Your task to perform on an android device: Search for "usb-c to usb-a" on ebay.com, select the first entry, add it to the cart, then select checkout. Image 0: 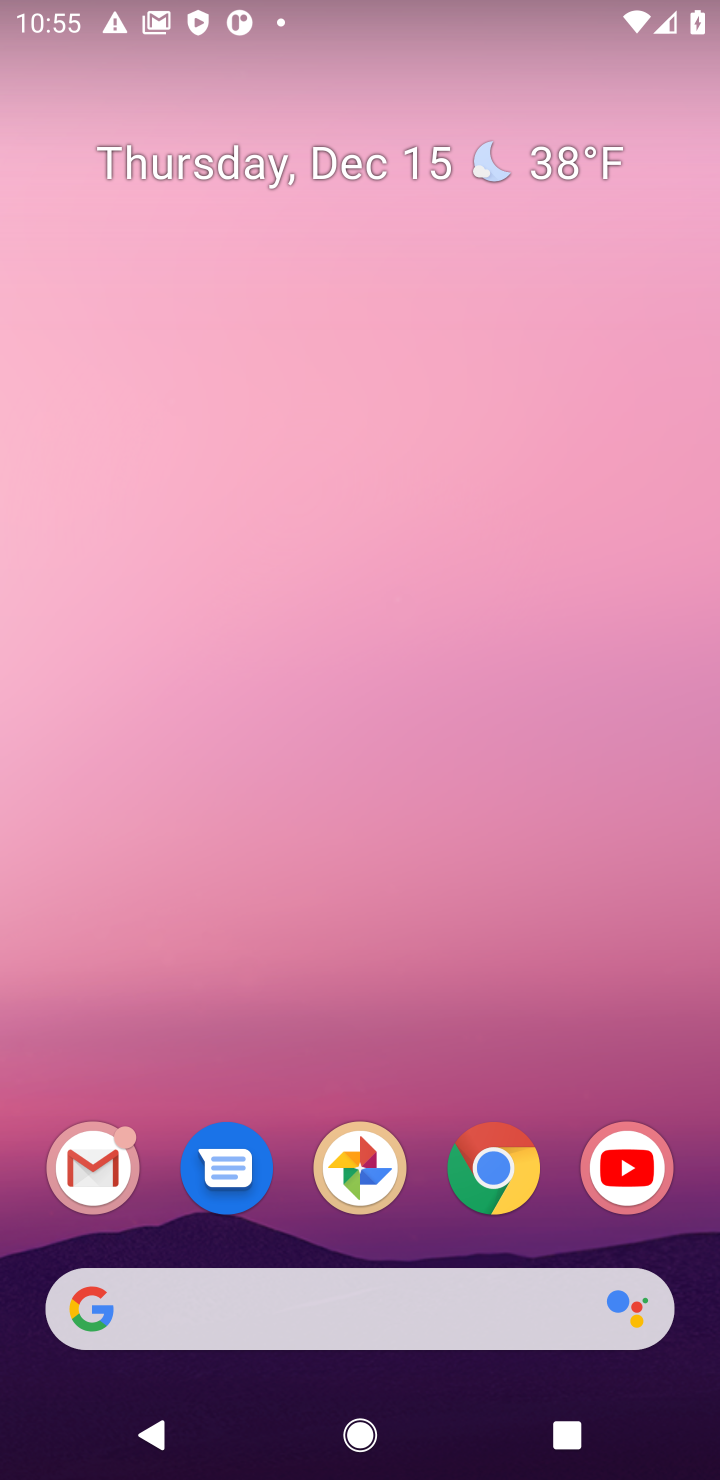
Step 0: click (485, 1166)
Your task to perform on an android device: Search for "usb-c to usb-a" on ebay.com, select the first entry, add it to the cart, then select checkout. Image 1: 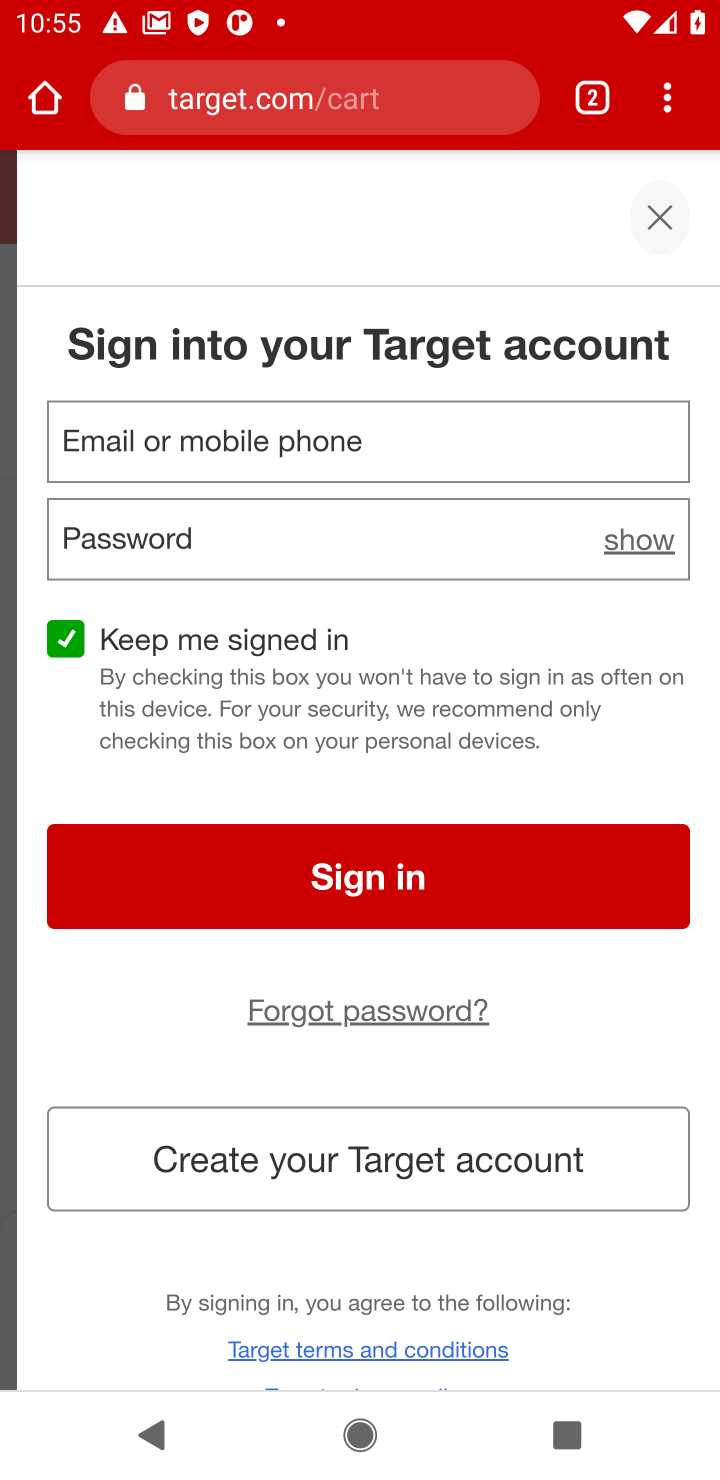
Step 1: click (368, 110)
Your task to perform on an android device: Search for "usb-c to usb-a" on ebay.com, select the first entry, add it to the cart, then select checkout. Image 2: 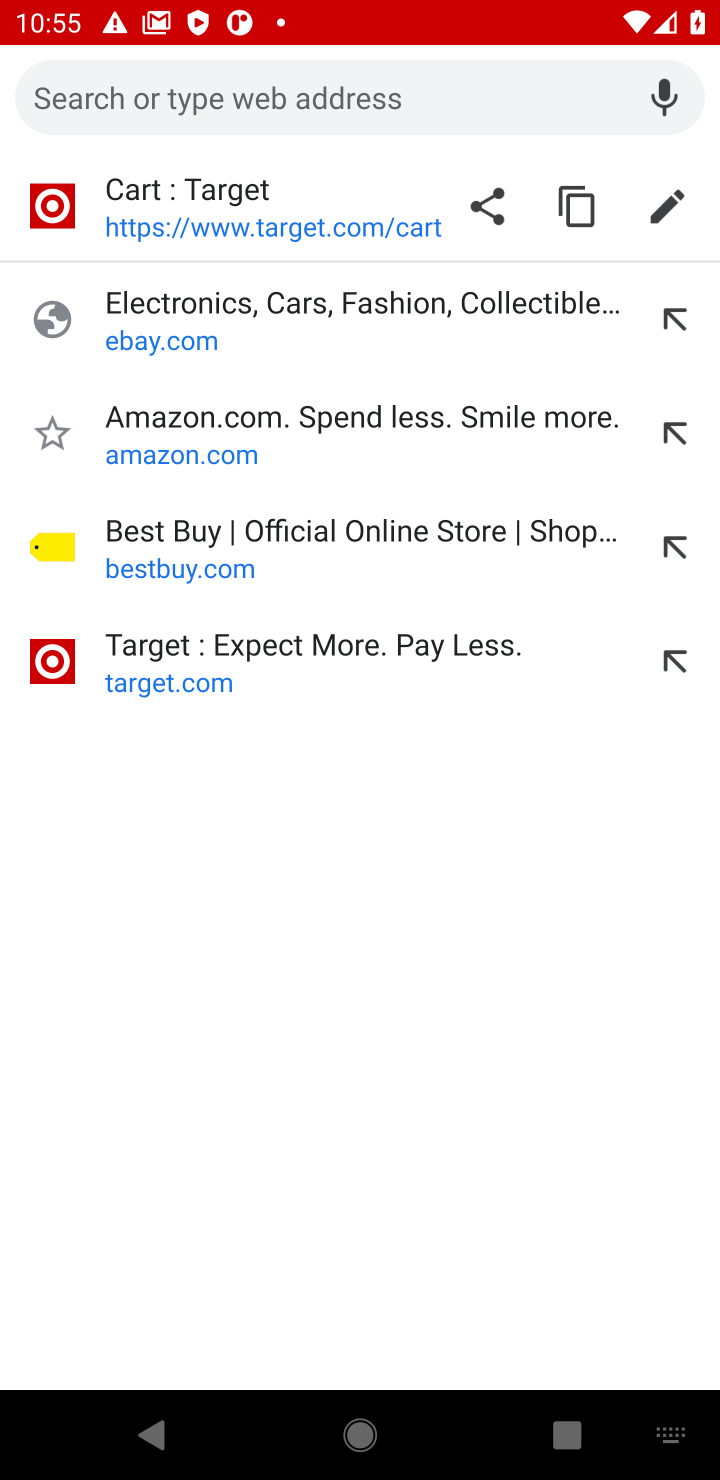
Step 2: click (485, 332)
Your task to perform on an android device: Search for "usb-c to usb-a" on ebay.com, select the first entry, add it to the cart, then select checkout. Image 3: 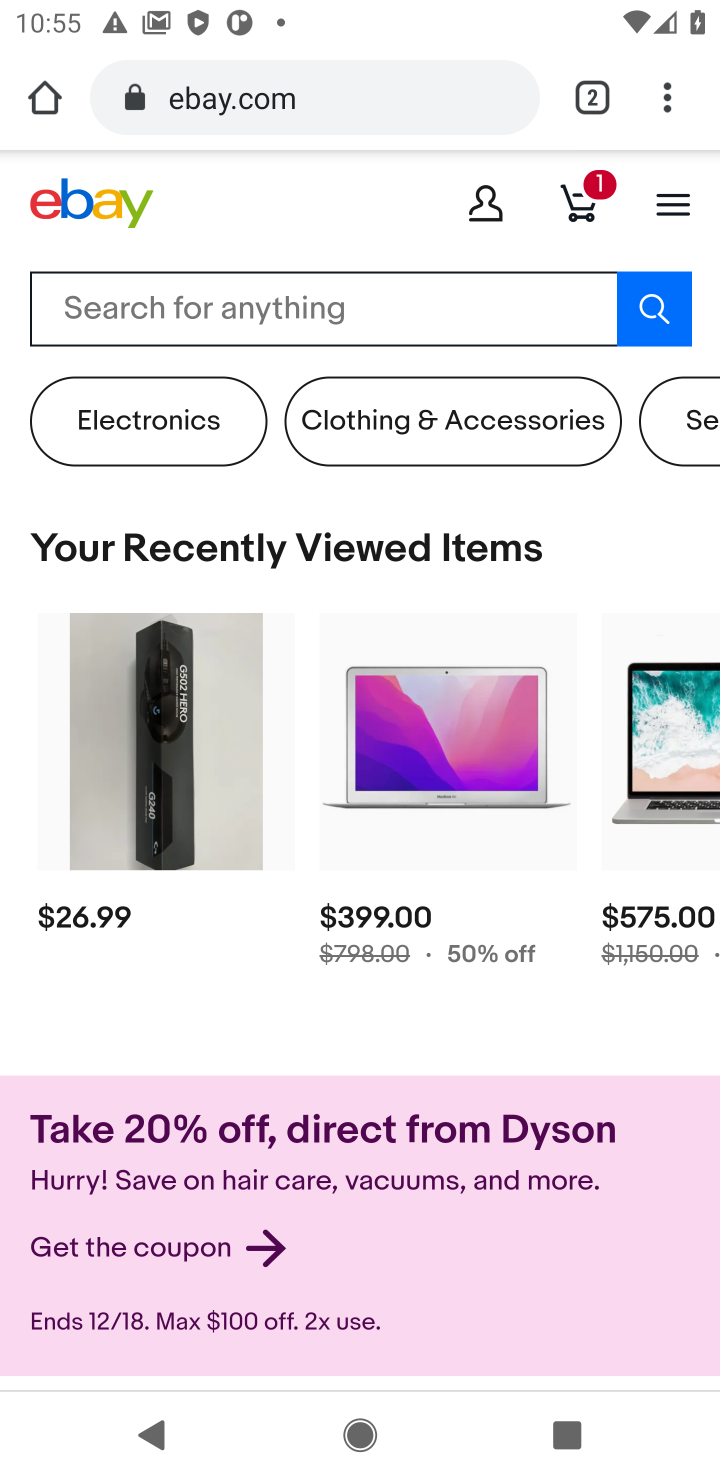
Step 3: click (465, 316)
Your task to perform on an android device: Search for "usb-c to usb-a" on ebay.com, select the first entry, add it to the cart, then select checkout. Image 4: 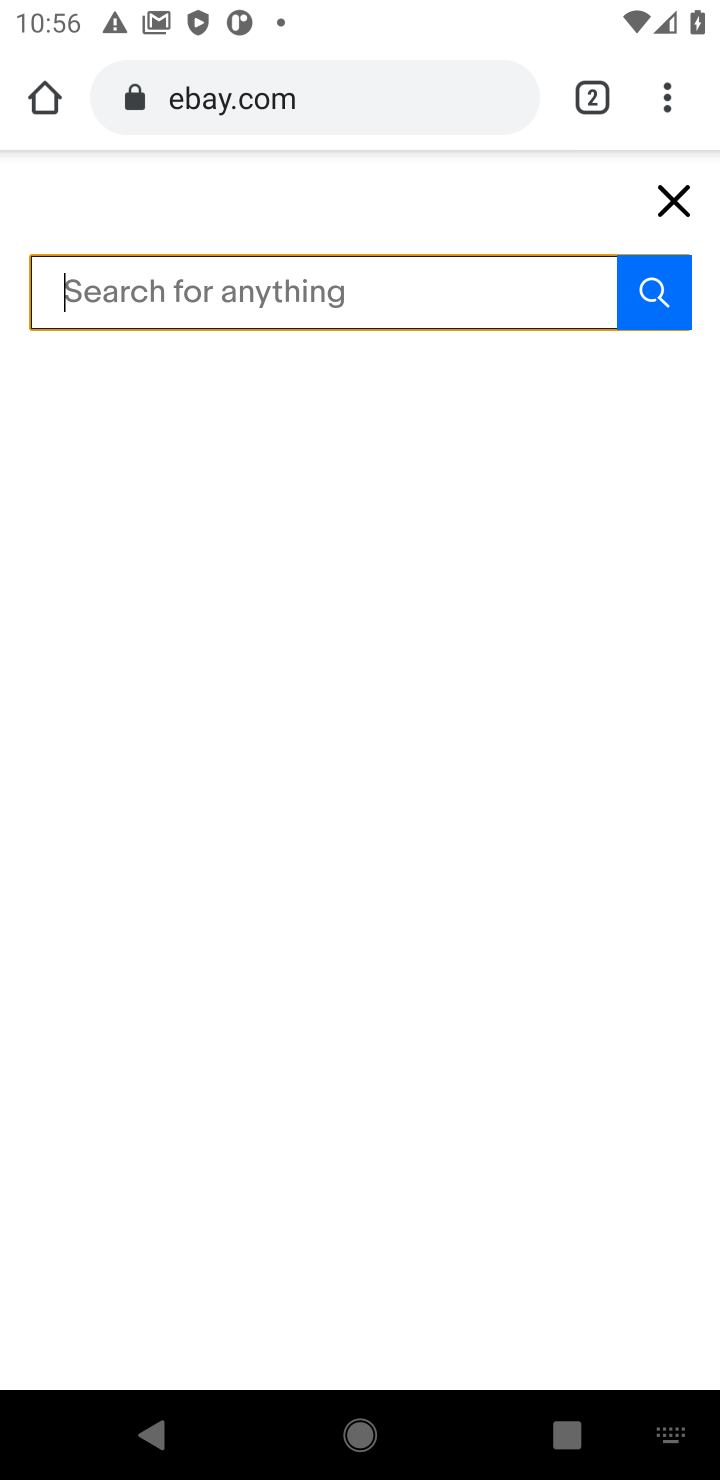
Step 4: type "usb-c to usb-a"
Your task to perform on an android device: Search for "usb-c to usb-a" on ebay.com, select the first entry, add it to the cart, then select checkout. Image 5: 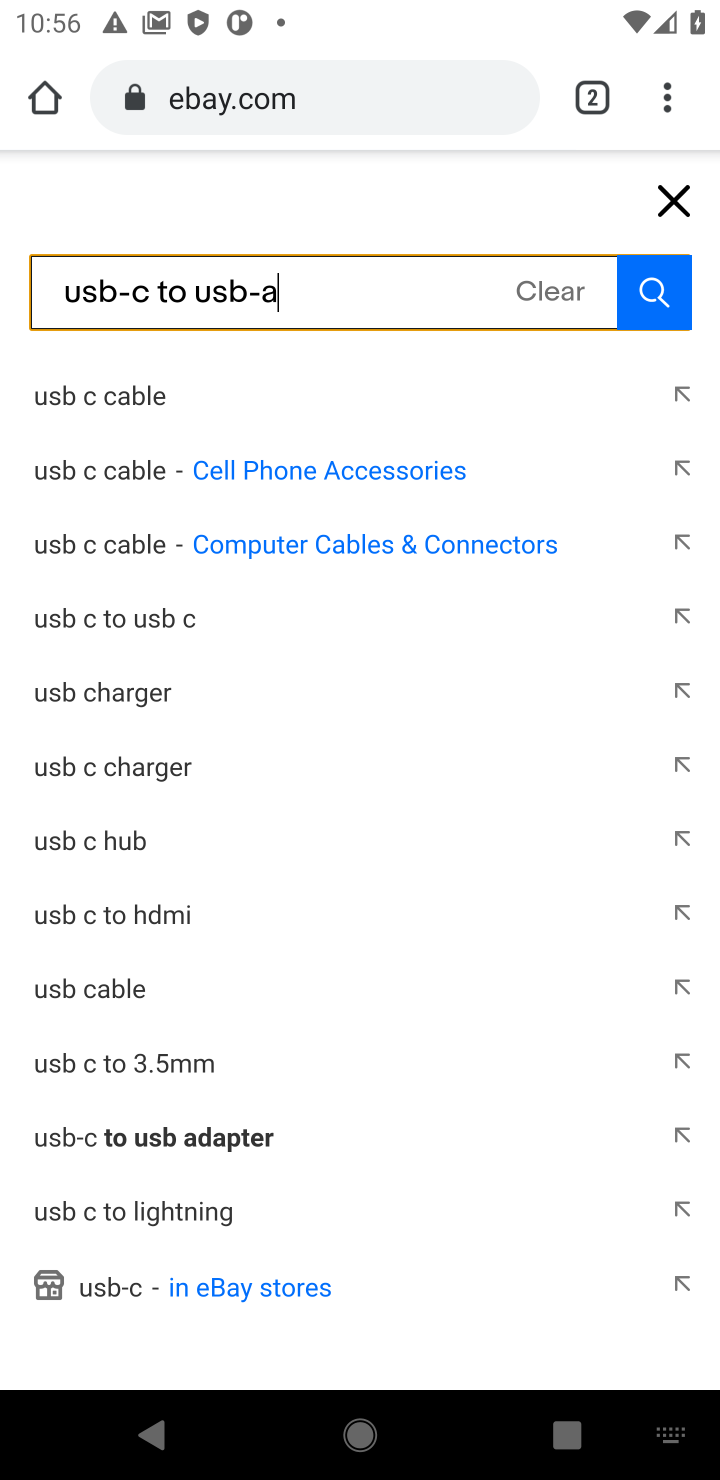
Step 5: click (186, 398)
Your task to perform on an android device: Search for "usb-c to usb-a" on ebay.com, select the first entry, add it to the cart, then select checkout. Image 6: 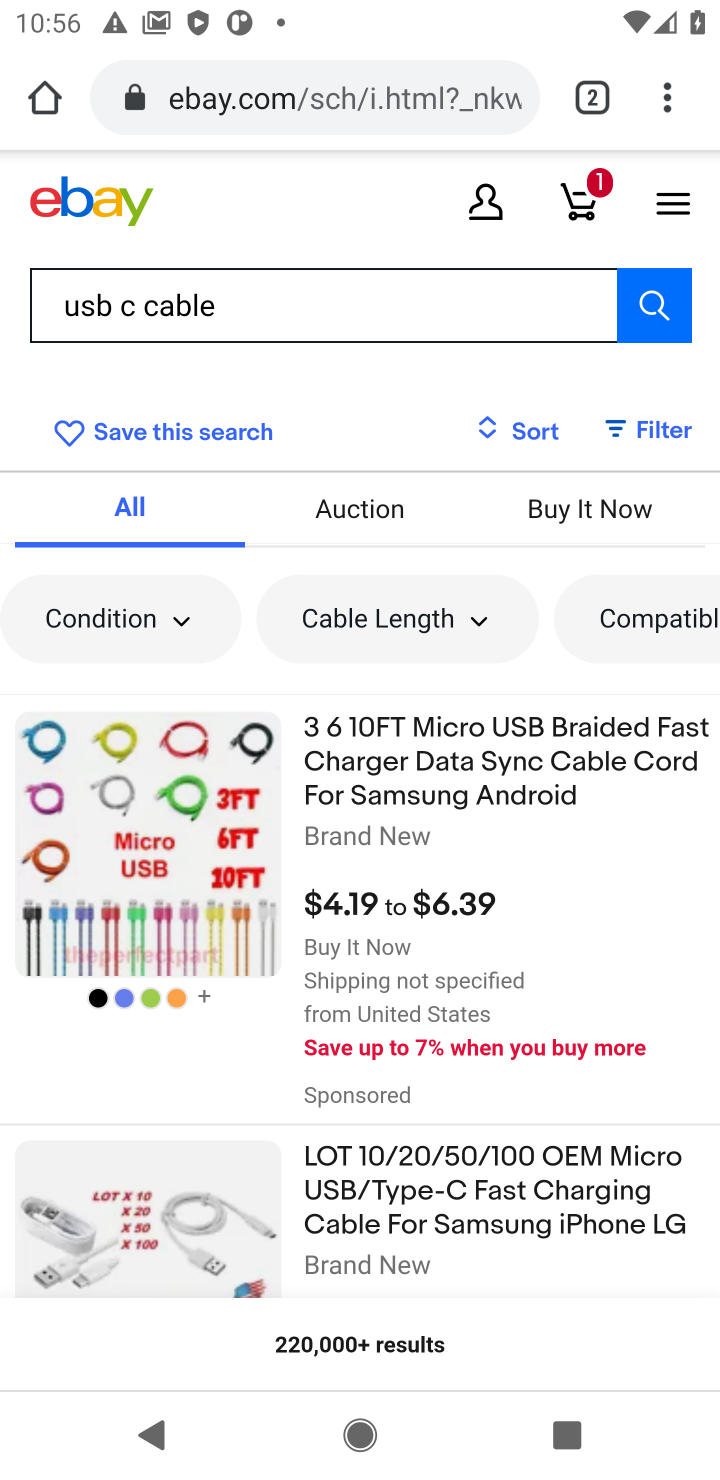
Step 6: click (442, 766)
Your task to perform on an android device: Search for "usb-c to usb-a" on ebay.com, select the first entry, add it to the cart, then select checkout. Image 7: 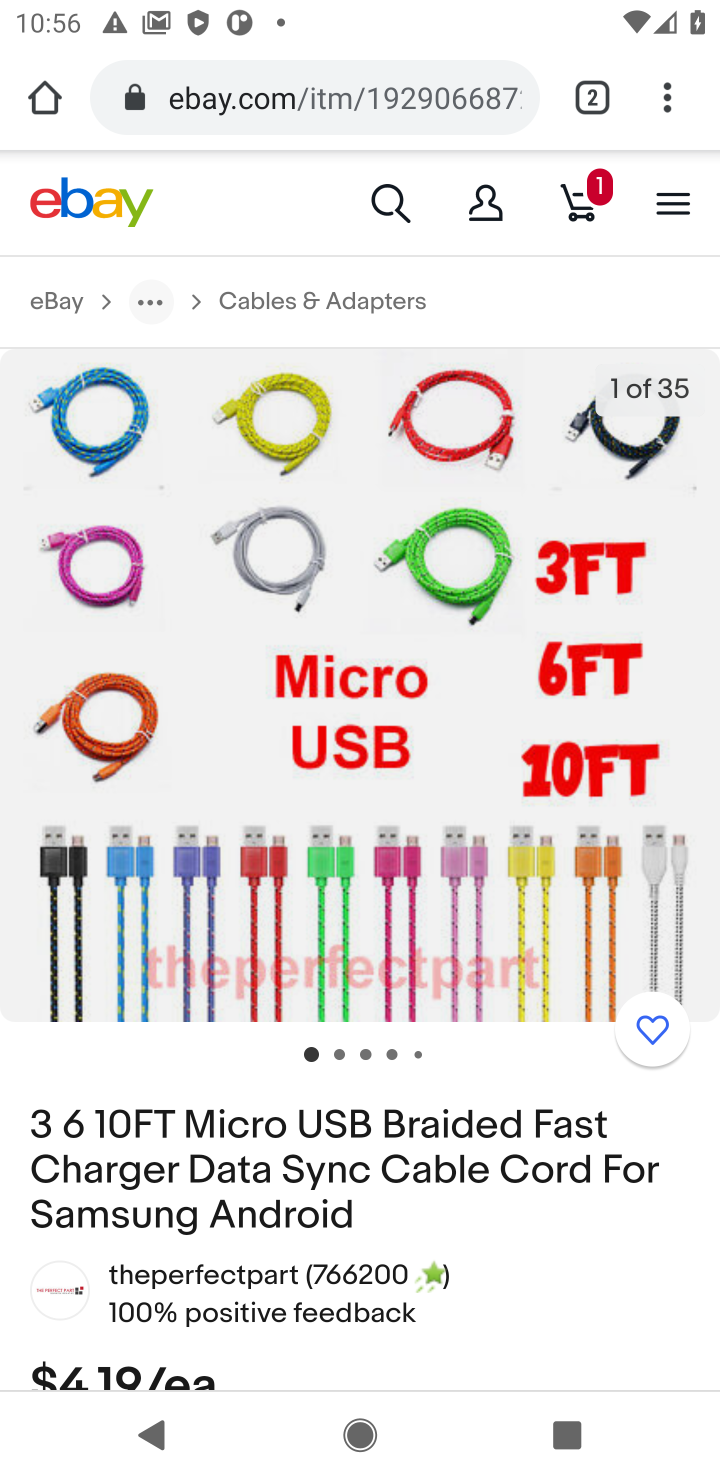
Step 7: drag from (538, 1159) to (517, 265)
Your task to perform on an android device: Search for "usb-c to usb-a" on ebay.com, select the first entry, add it to the cart, then select checkout. Image 8: 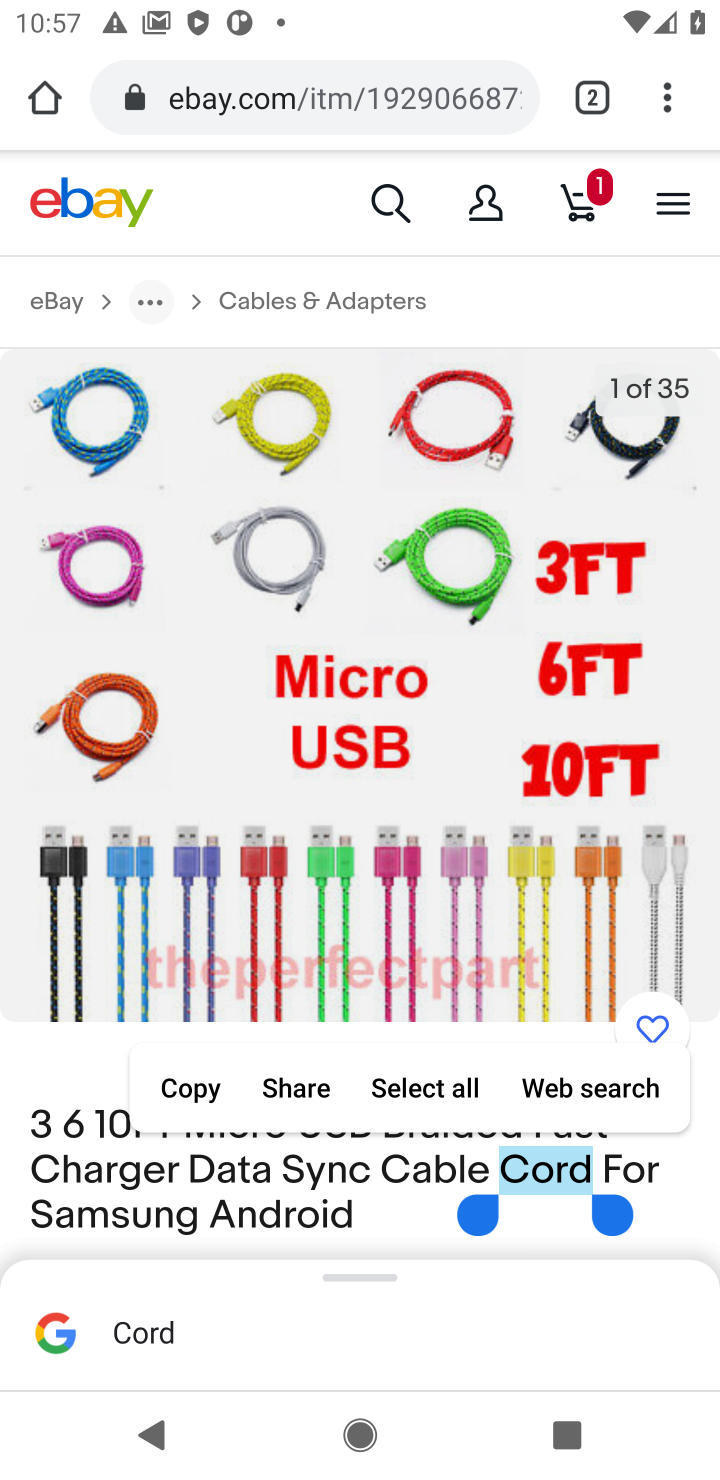
Step 8: click (395, 1207)
Your task to perform on an android device: Search for "usb-c to usb-a" on ebay.com, select the first entry, add it to the cart, then select checkout. Image 9: 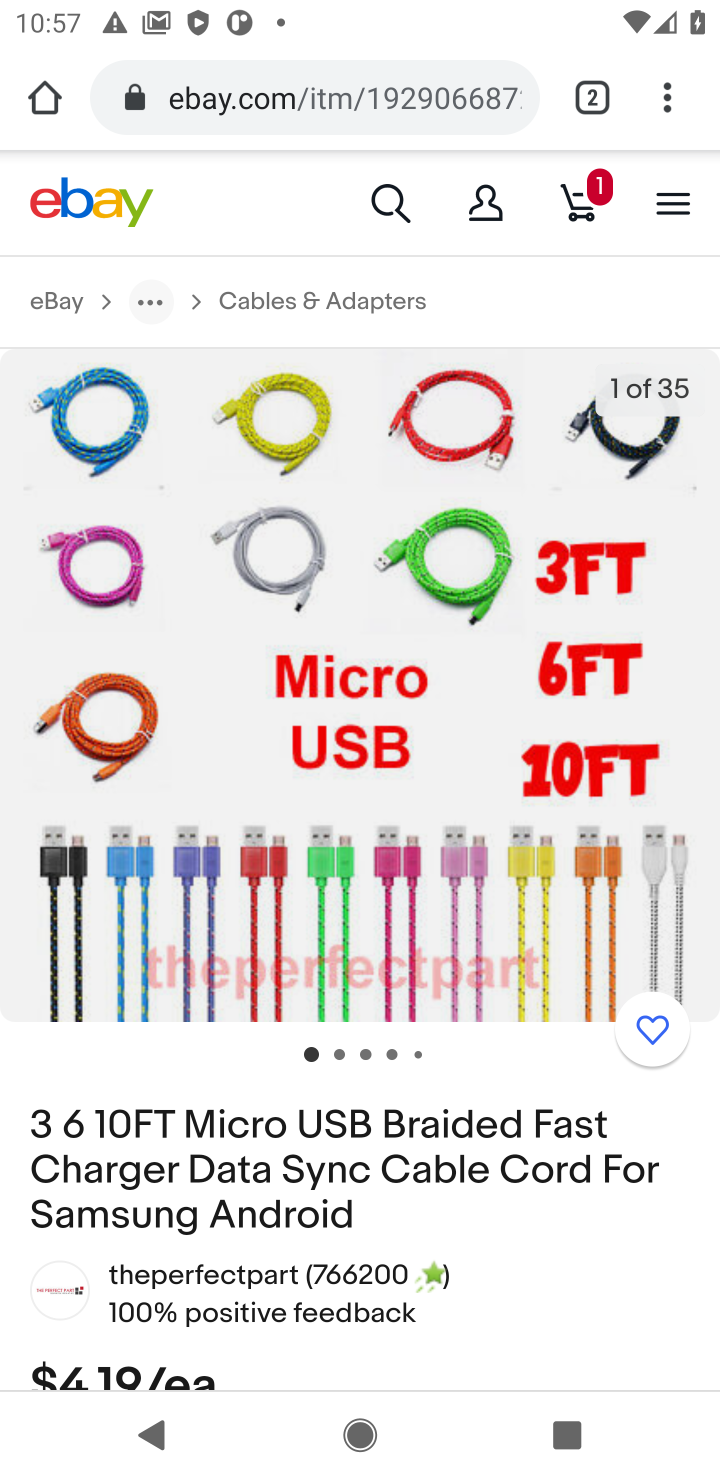
Step 9: drag from (487, 1207) to (384, 99)
Your task to perform on an android device: Search for "usb-c to usb-a" on ebay.com, select the first entry, add it to the cart, then select checkout. Image 10: 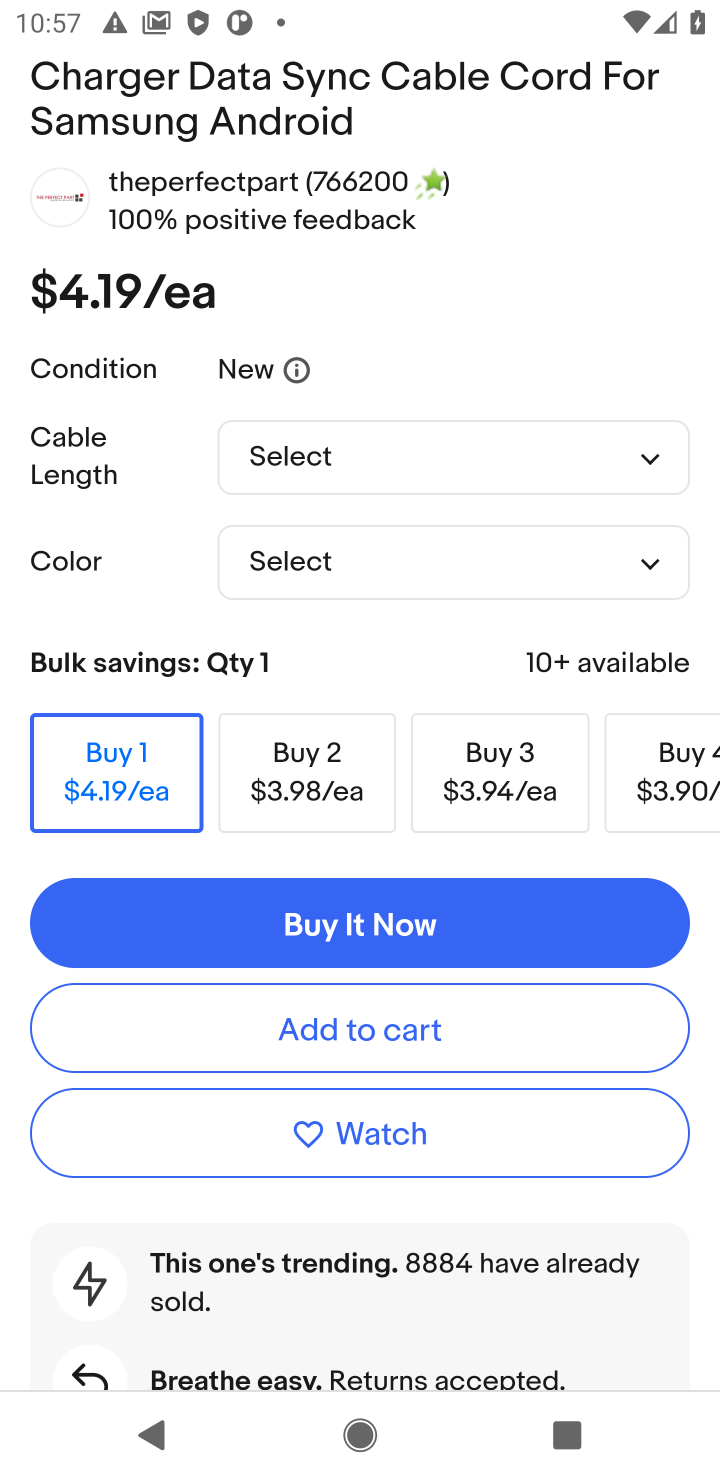
Step 10: click (389, 1010)
Your task to perform on an android device: Search for "usb-c to usb-a" on ebay.com, select the first entry, add it to the cart, then select checkout. Image 11: 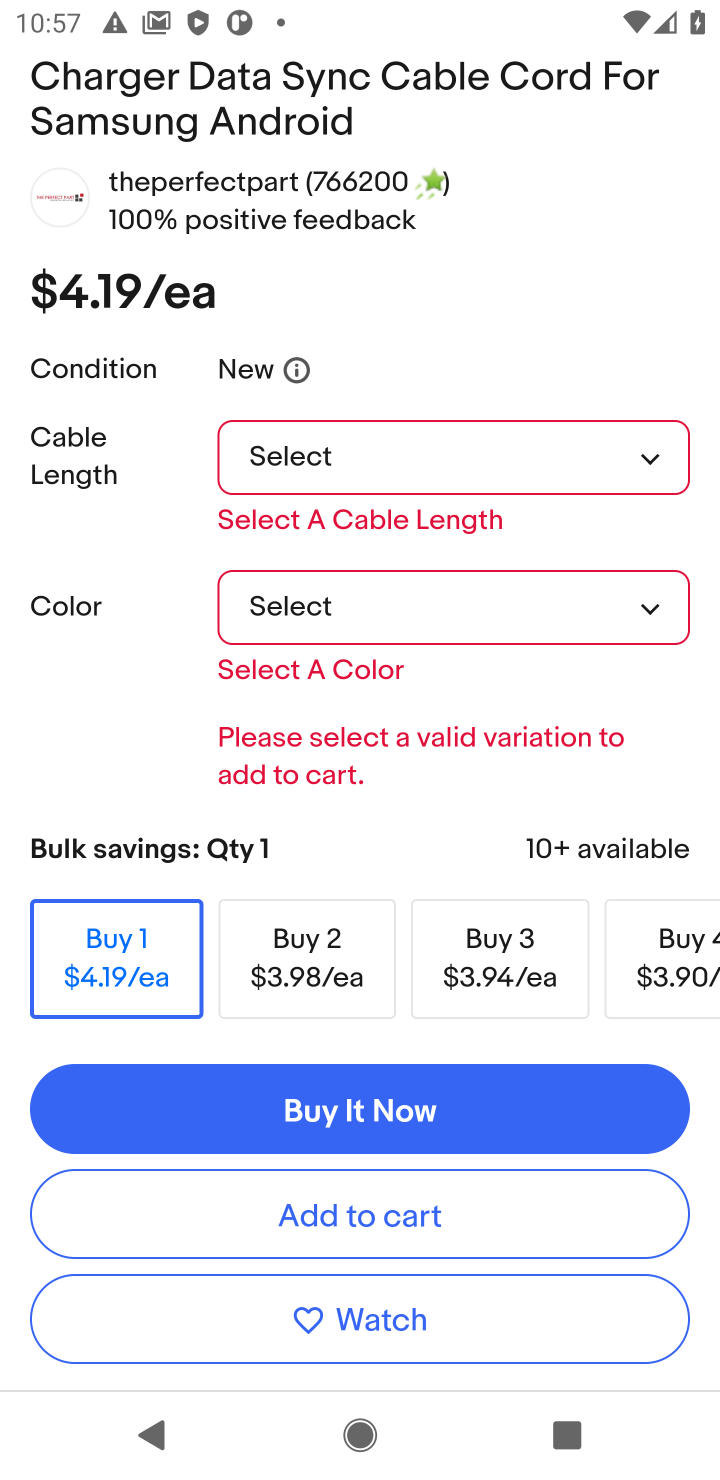
Step 11: click (390, 1209)
Your task to perform on an android device: Search for "usb-c to usb-a" on ebay.com, select the first entry, add it to the cart, then select checkout. Image 12: 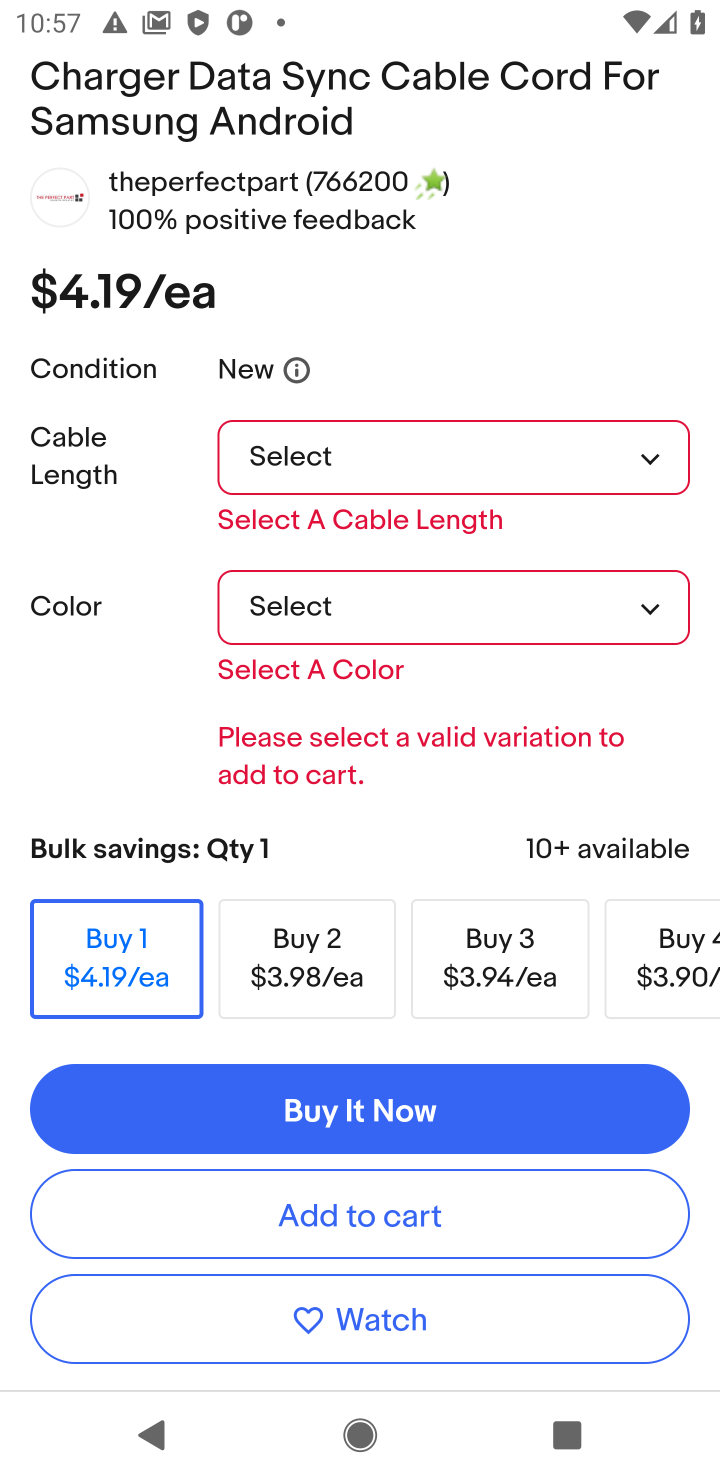
Step 12: click (390, 1209)
Your task to perform on an android device: Search for "usb-c to usb-a" on ebay.com, select the first entry, add it to the cart, then select checkout. Image 13: 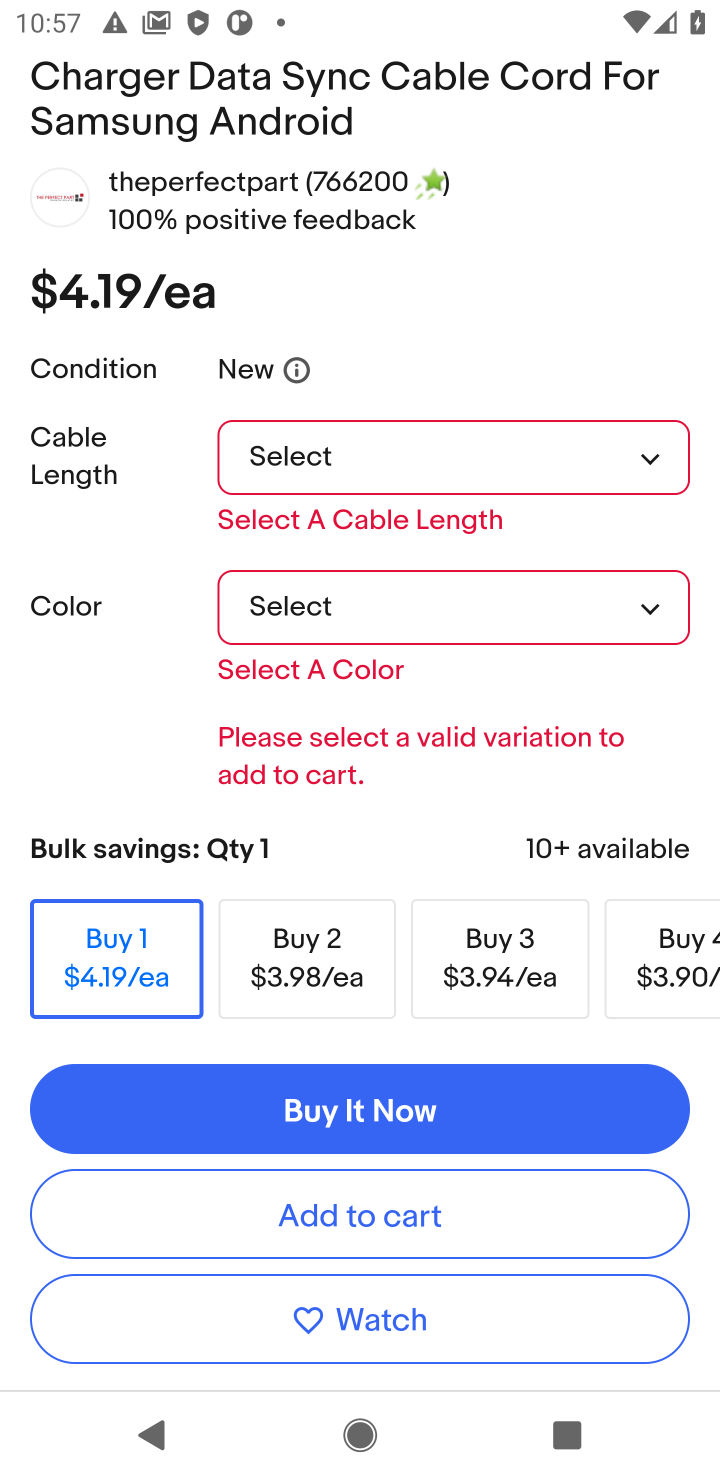
Step 13: click (592, 449)
Your task to perform on an android device: Search for "usb-c to usb-a" on ebay.com, select the first entry, add it to the cart, then select checkout. Image 14: 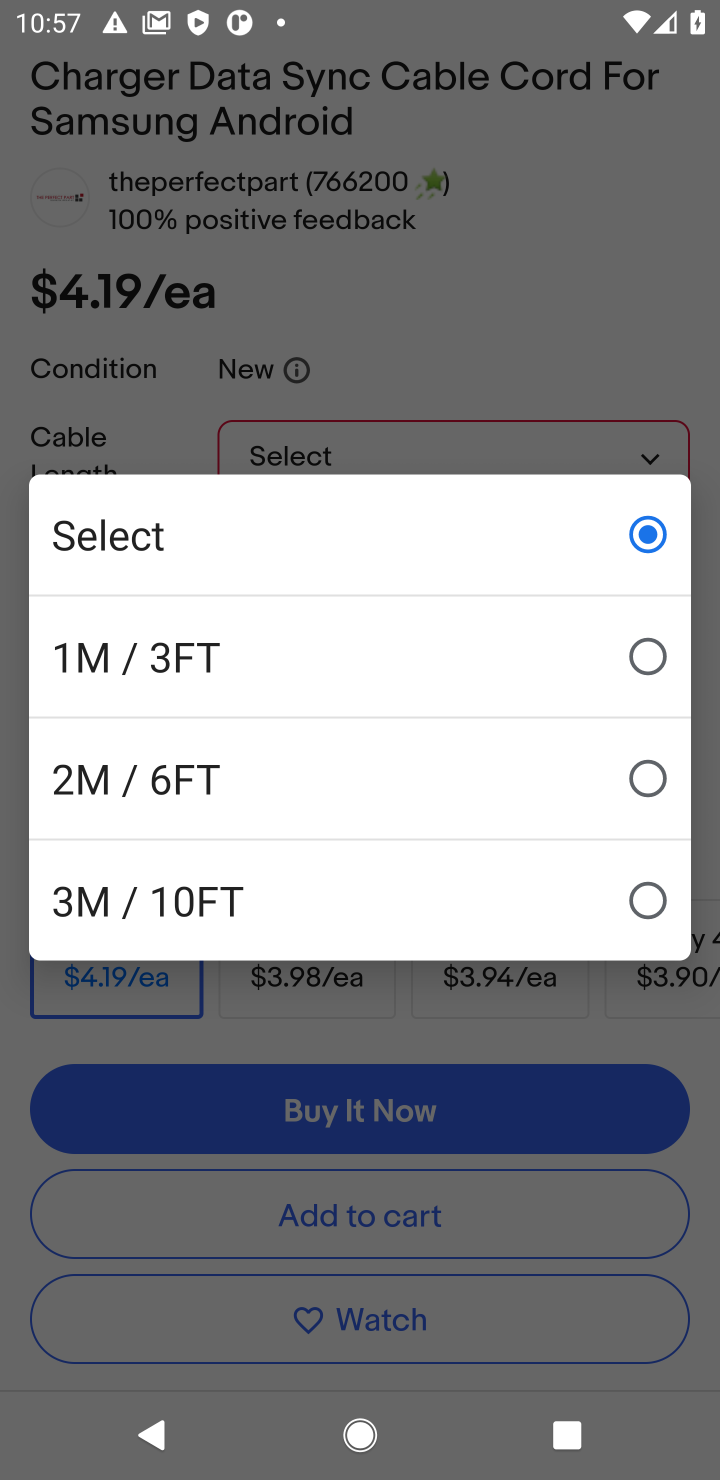
Step 14: click (236, 659)
Your task to perform on an android device: Search for "usb-c to usb-a" on ebay.com, select the first entry, add it to the cart, then select checkout. Image 15: 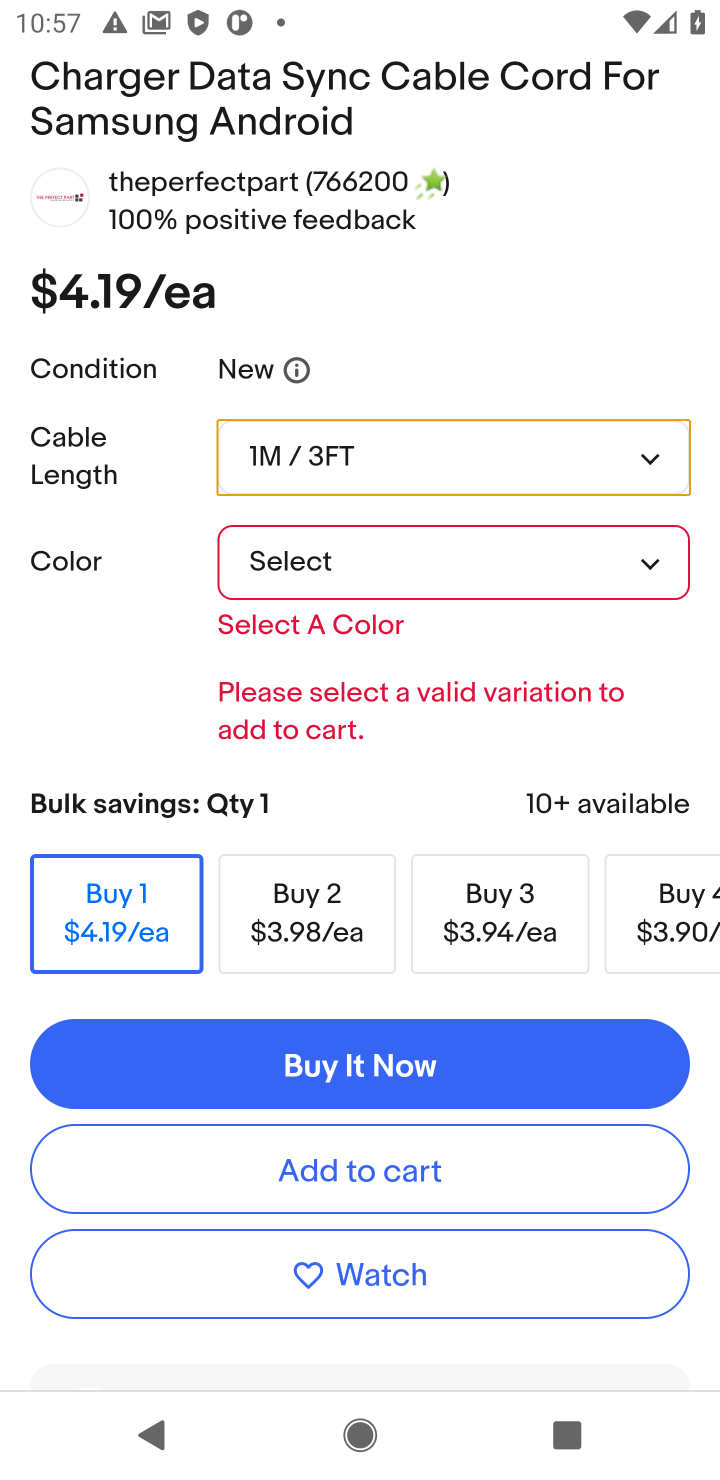
Step 15: click (608, 564)
Your task to perform on an android device: Search for "usb-c to usb-a" on ebay.com, select the first entry, add it to the cart, then select checkout. Image 16: 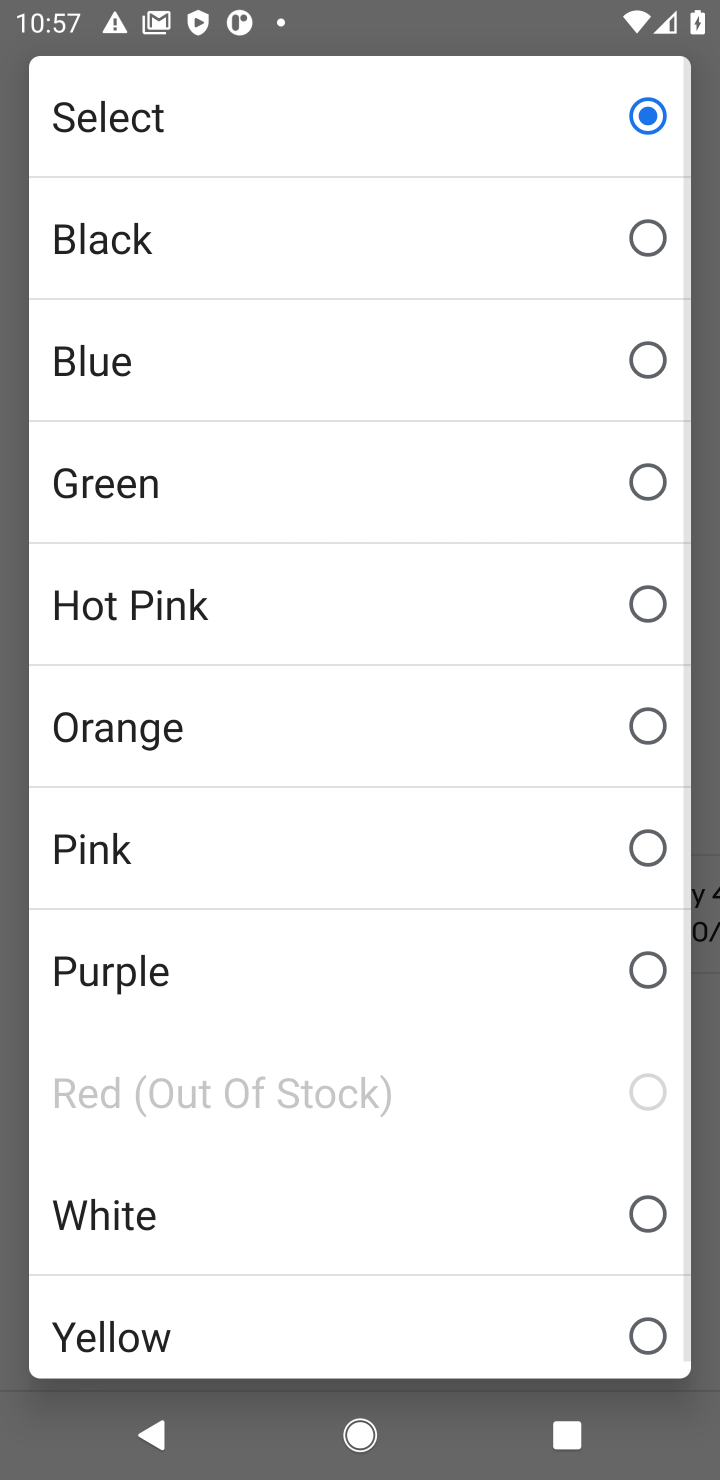
Step 16: click (254, 239)
Your task to perform on an android device: Search for "usb-c to usb-a" on ebay.com, select the first entry, add it to the cart, then select checkout. Image 17: 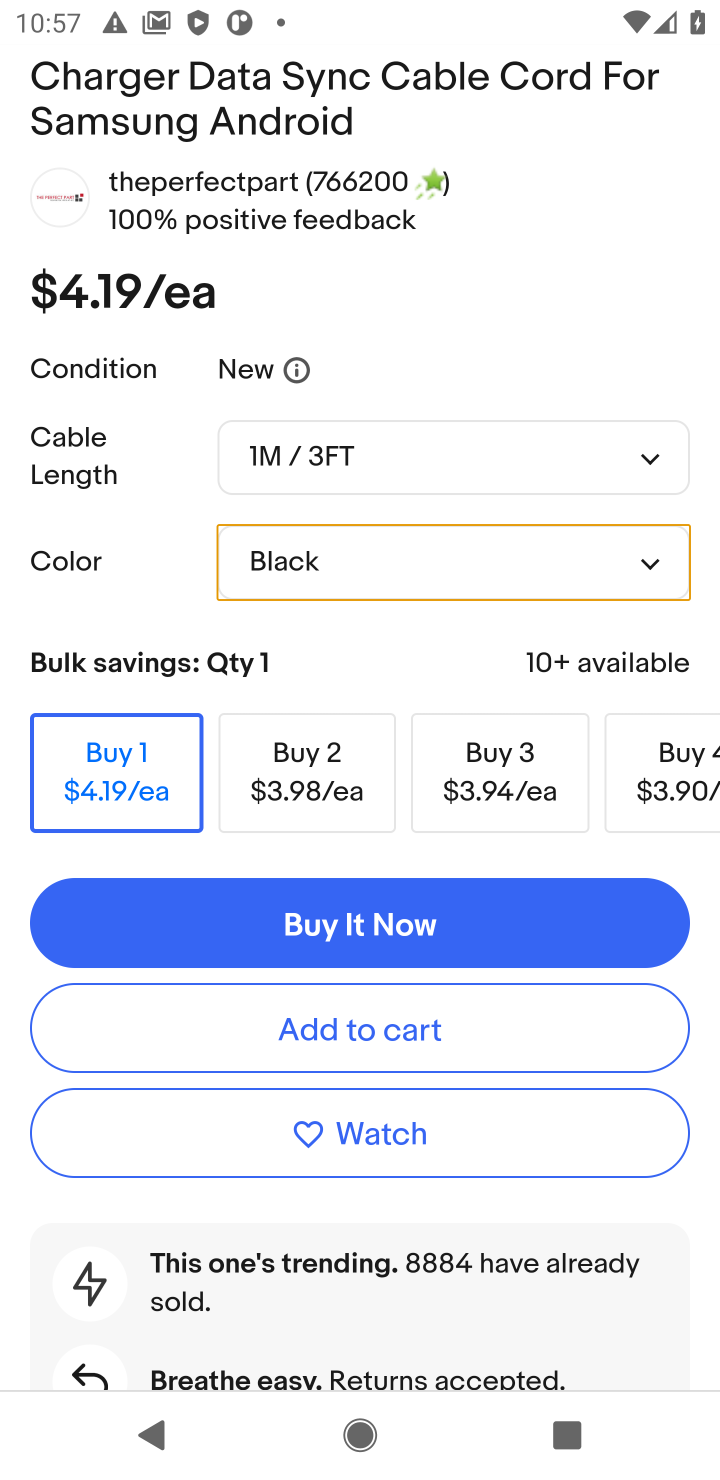
Step 17: click (429, 1035)
Your task to perform on an android device: Search for "usb-c to usb-a" on ebay.com, select the first entry, add it to the cart, then select checkout. Image 18: 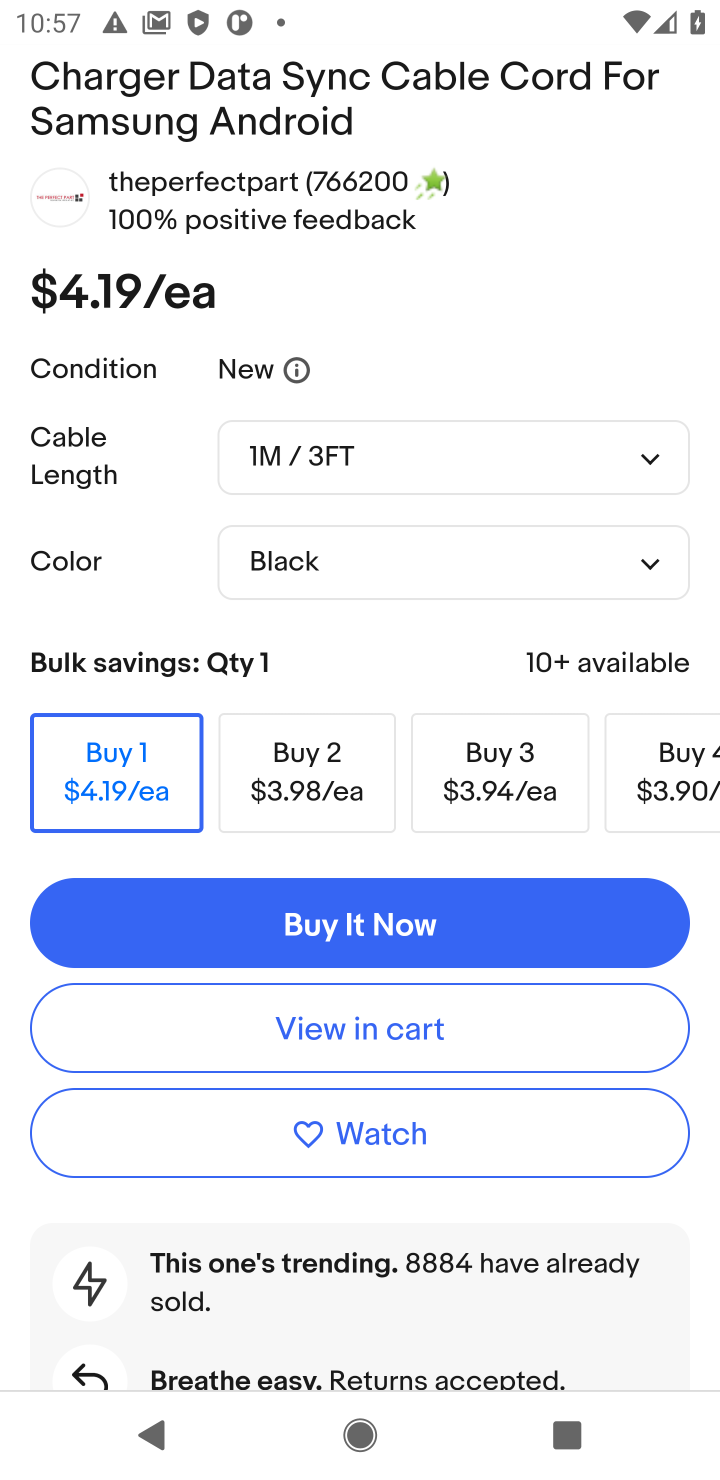
Step 18: click (429, 1035)
Your task to perform on an android device: Search for "usb-c to usb-a" on ebay.com, select the first entry, add it to the cart, then select checkout. Image 19: 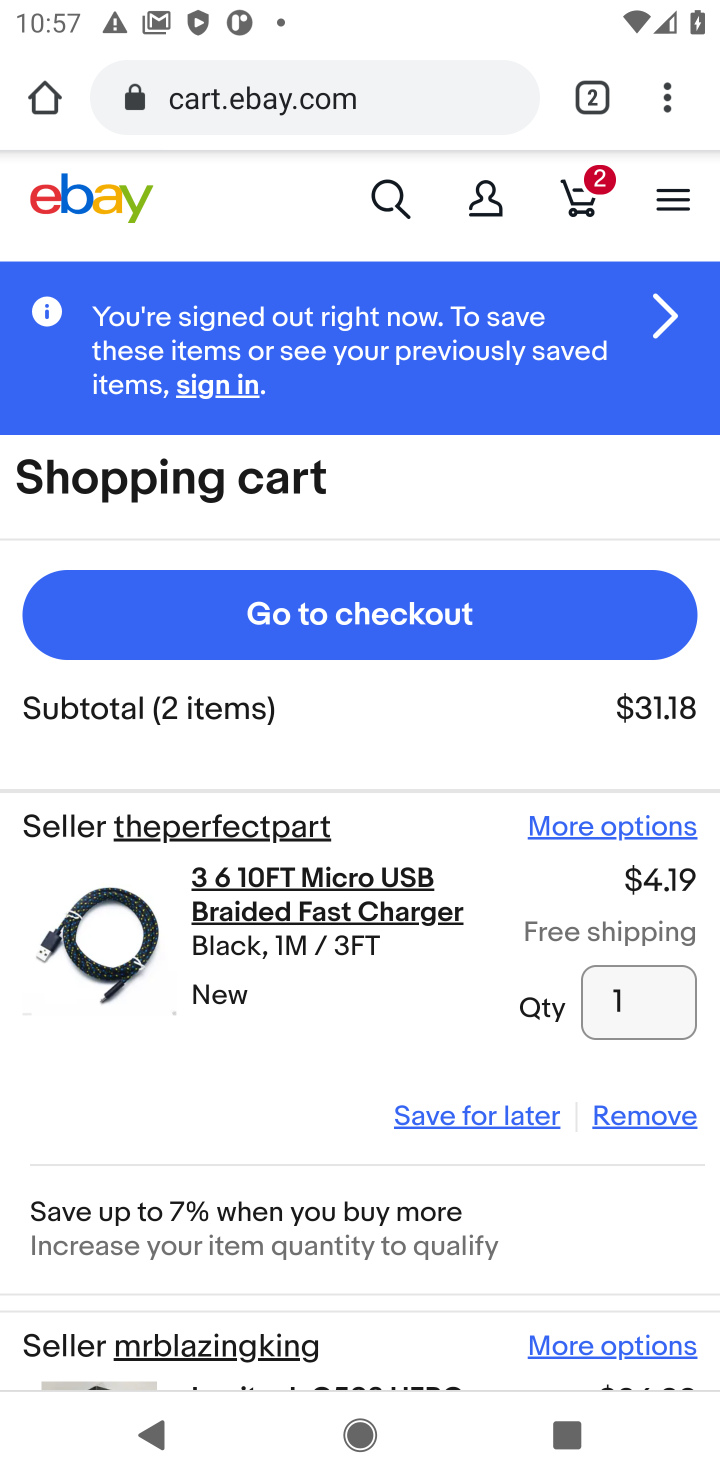
Step 19: click (332, 620)
Your task to perform on an android device: Search for "usb-c to usb-a" on ebay.com, select the first entry, add it to the cart, then select checkout. Image 20: 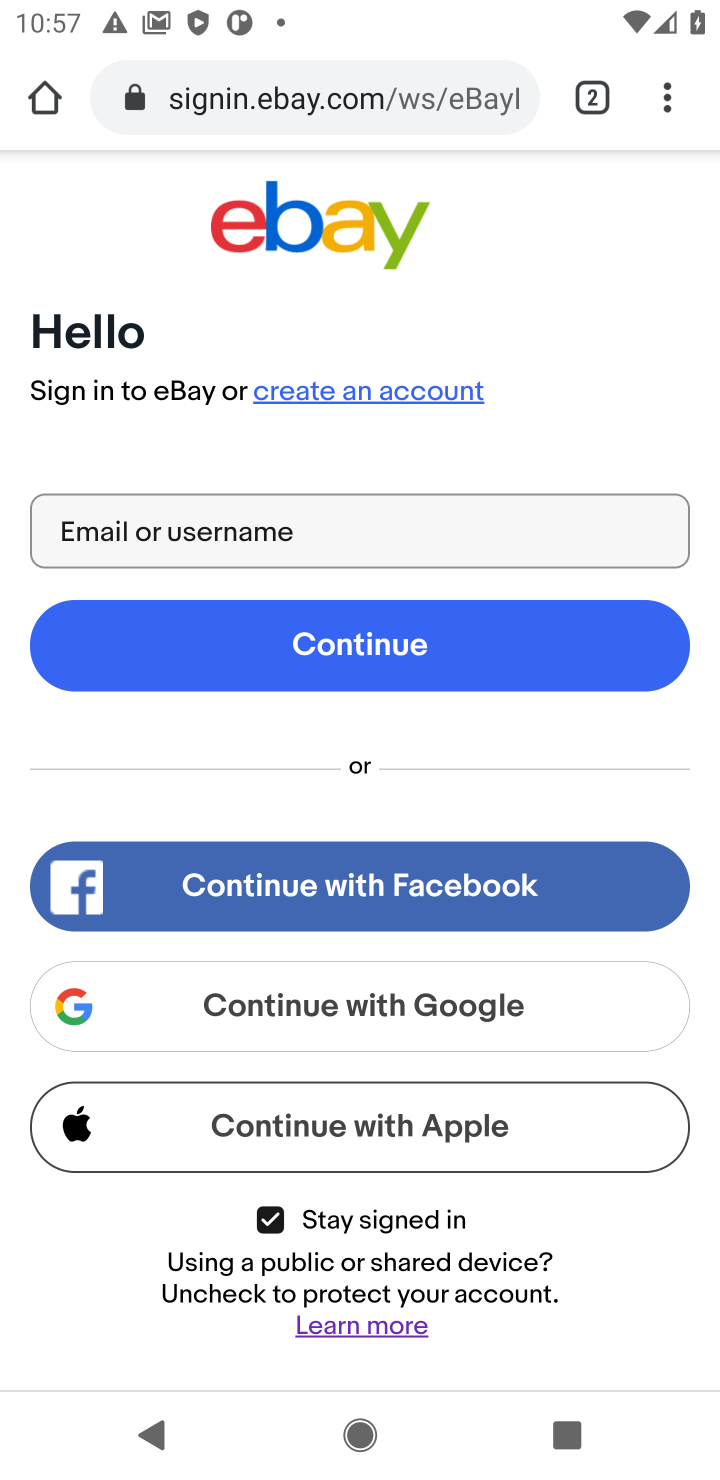
Step 20: task complete